Your task to perform on an android device: open app "WhatsApp Messenger" (install if not already installed) Image 0: 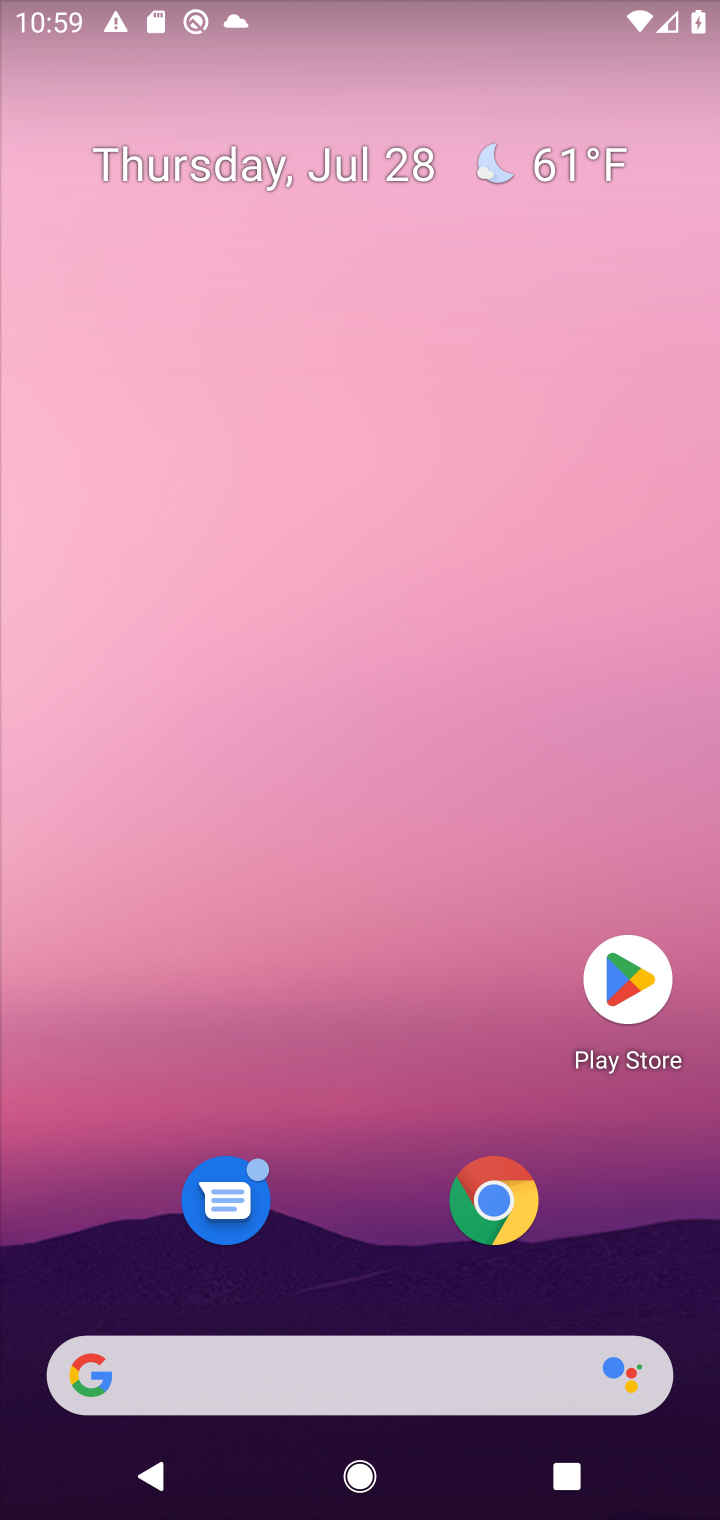
Step 0: press home button
Your task to perform on an android device: open app "WhatsApp Messenger" (install if not already installed) Image 1: 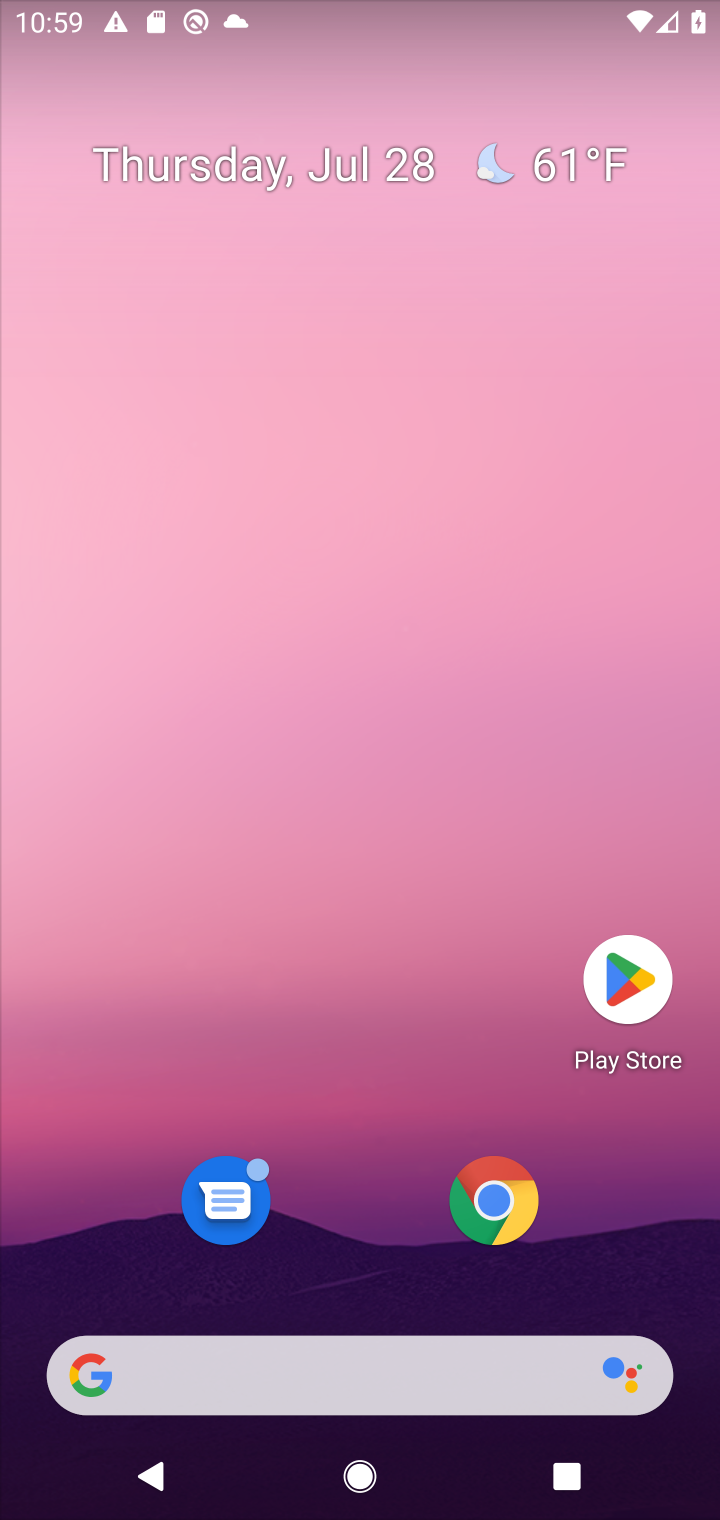
Step 1: click (620, 968)
Your task to perform on an android device: open app "WhatsApp Messenger" (install if not already installed) Image 2: 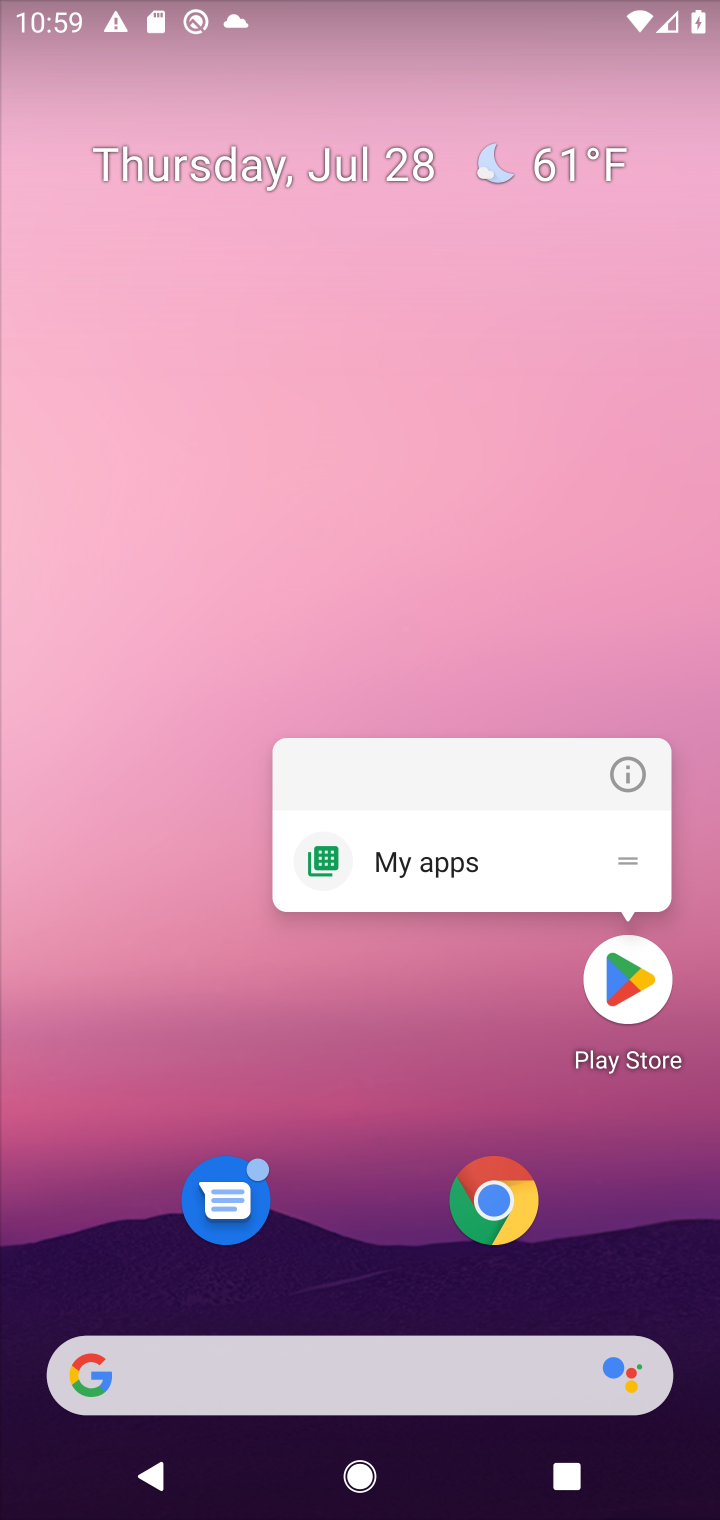
Step 2: click (620, 969)
Your task to perform on an android device: open app "WhatsApp Messenger" (install if not already installed) Image 3: 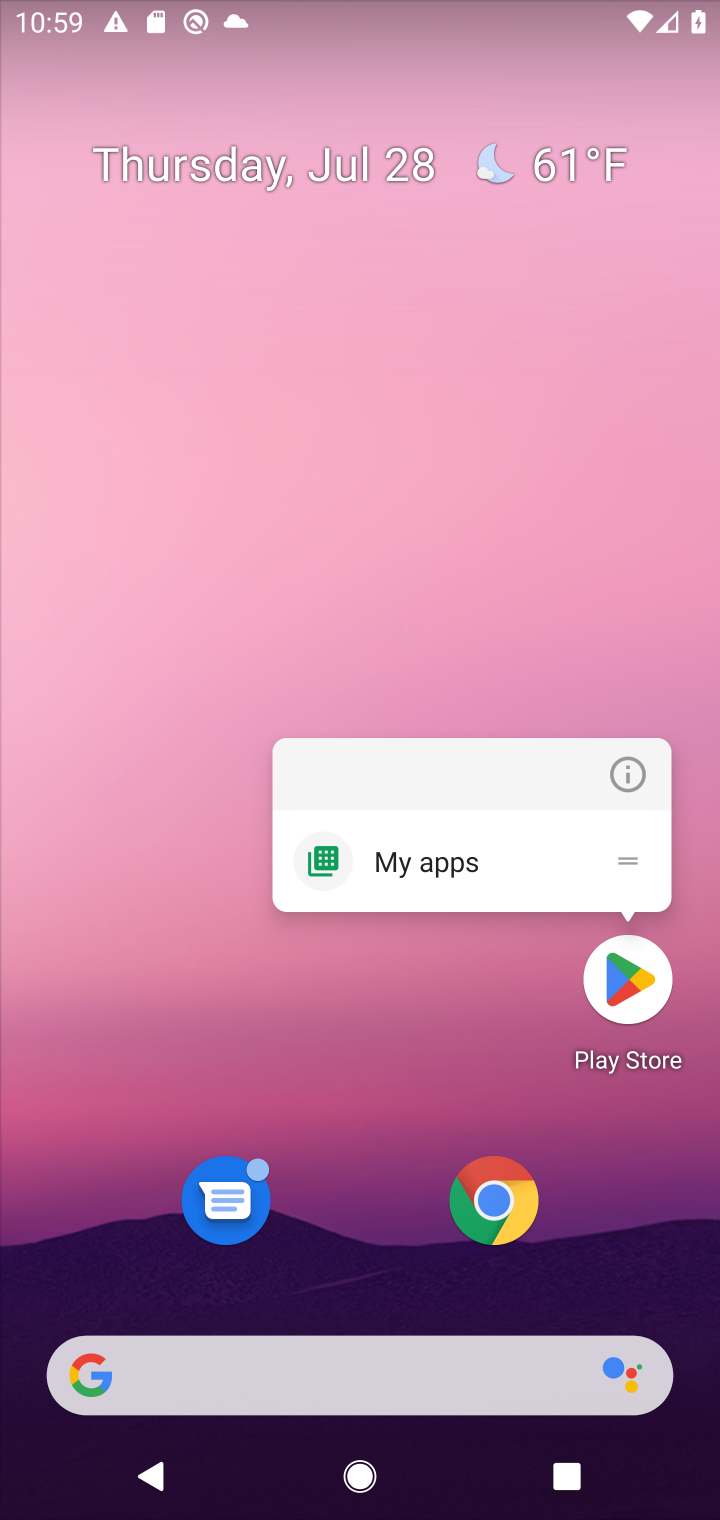
Step 3: click (622, 979)
Your task to perform on an android device: open app "WhatsApp Messenger" (install if not already installed) Image 4: 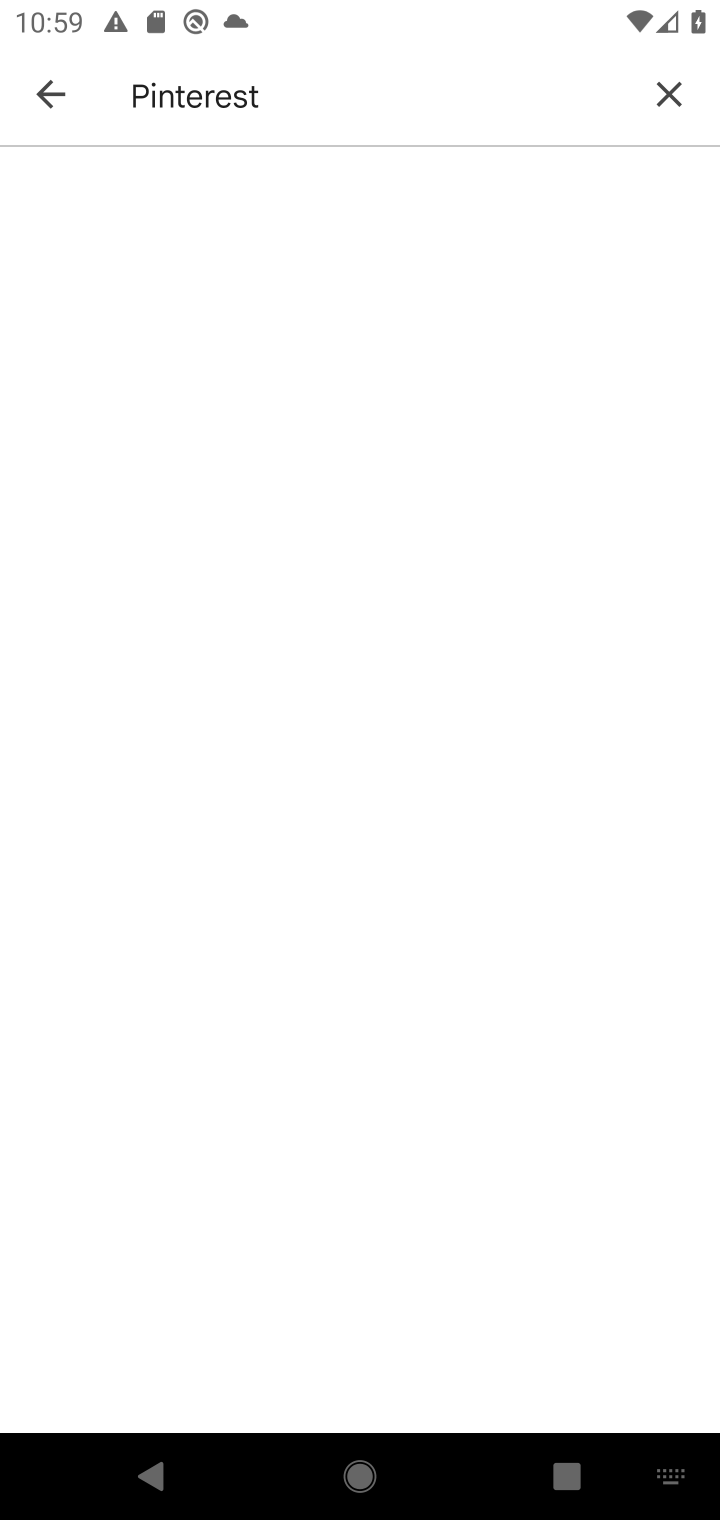
Step 4: click (654, 92)
Your task to perform on an android device: open app "WhatsApp Messenger" (install if not already installed) Image 5: 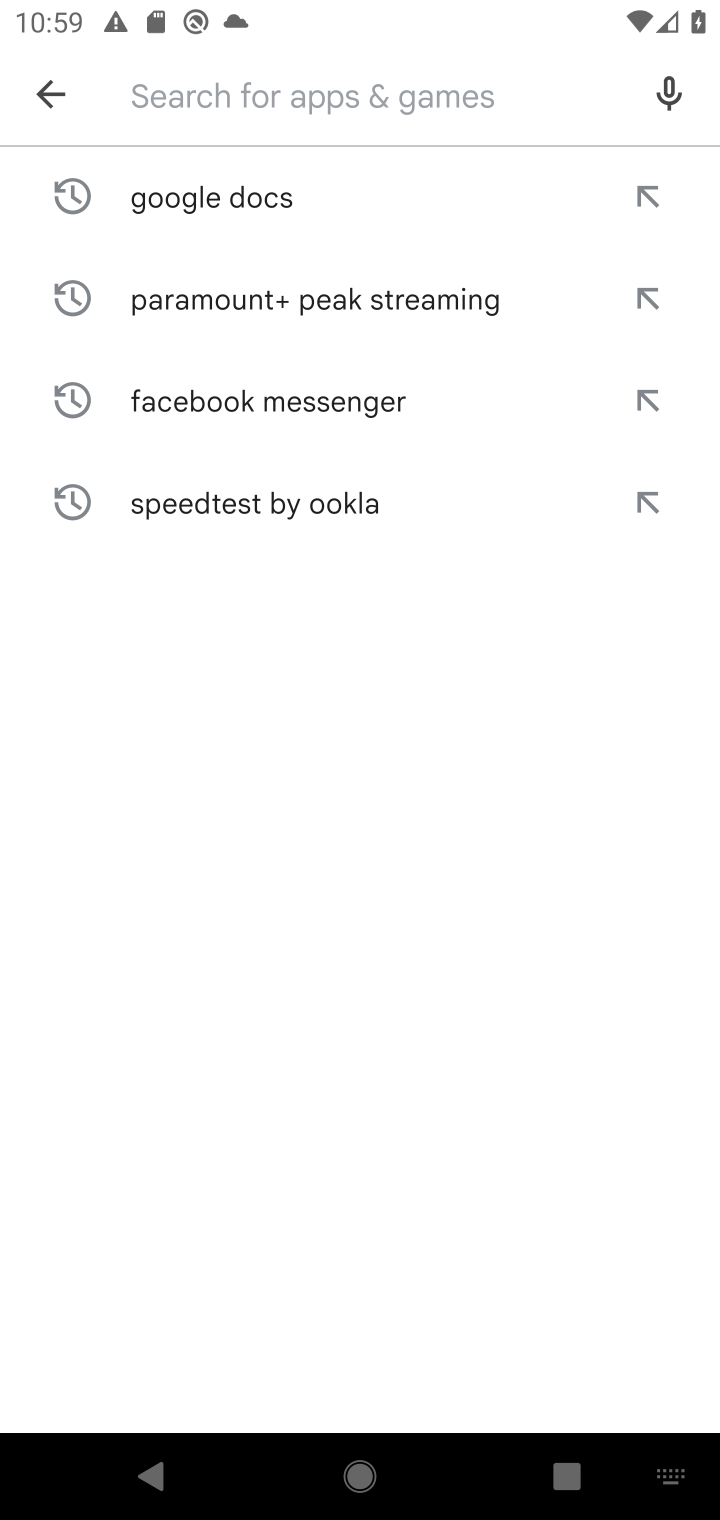
Step 5: type "WhatsApp Messenger"
Your task to perform on an android device: open app "WhatsApp Messenger" (install if not already installed) Image 6: 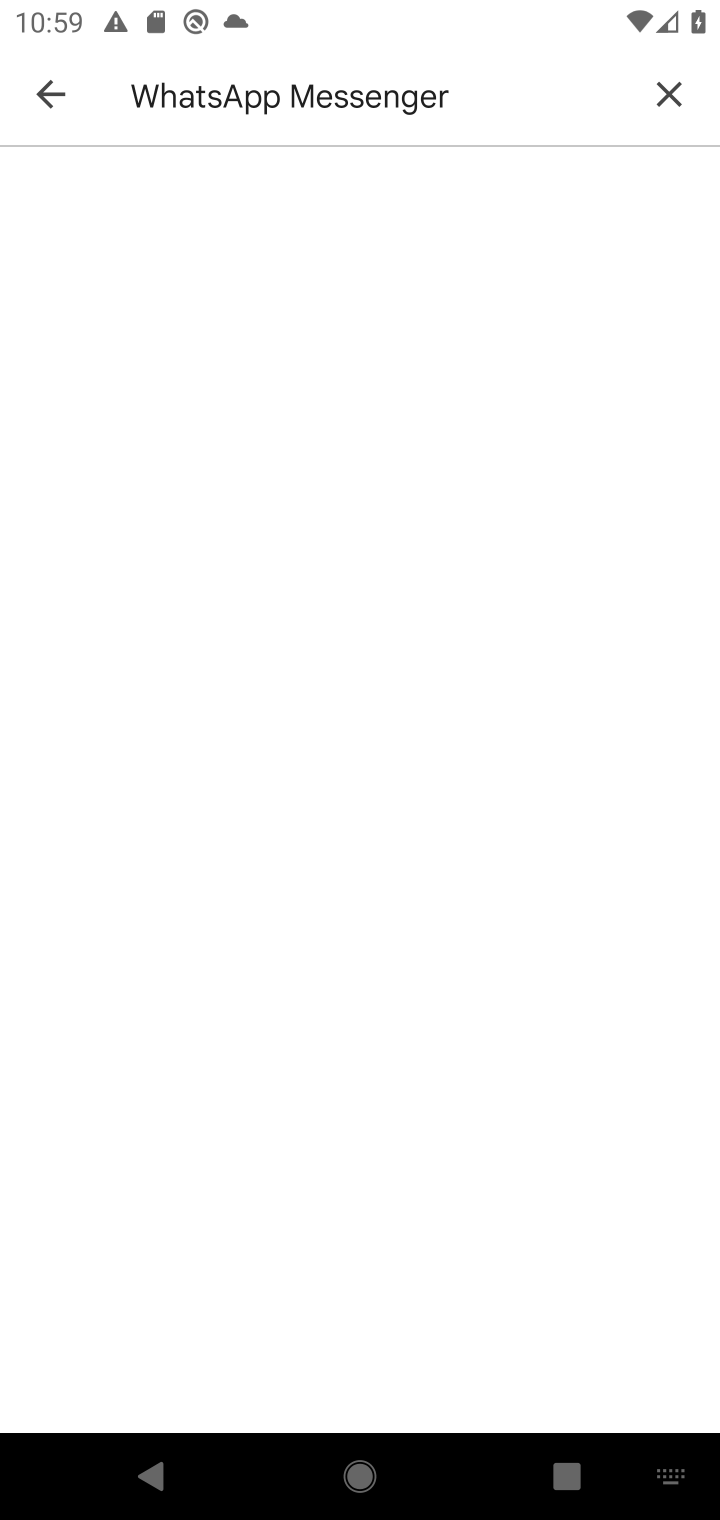
Step 6: click (681, 95)
Your task to perform on an android device: open app "WhatsApp Messenger" (install if not already installed) Image 7: 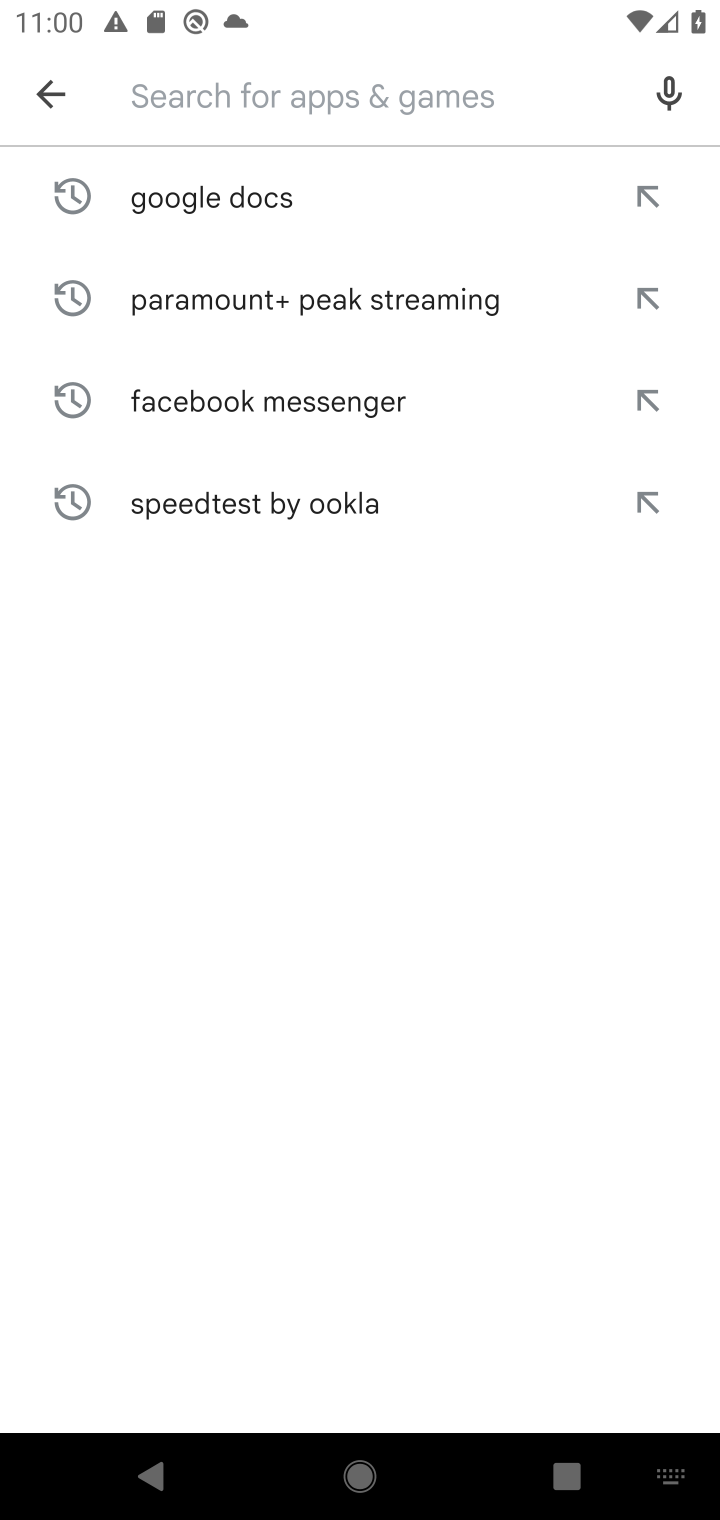
Step 7: click (237, 96)
Your task to perform on an android device: open app "WhatsApp Messenger" (install if not already installed) Image 8: 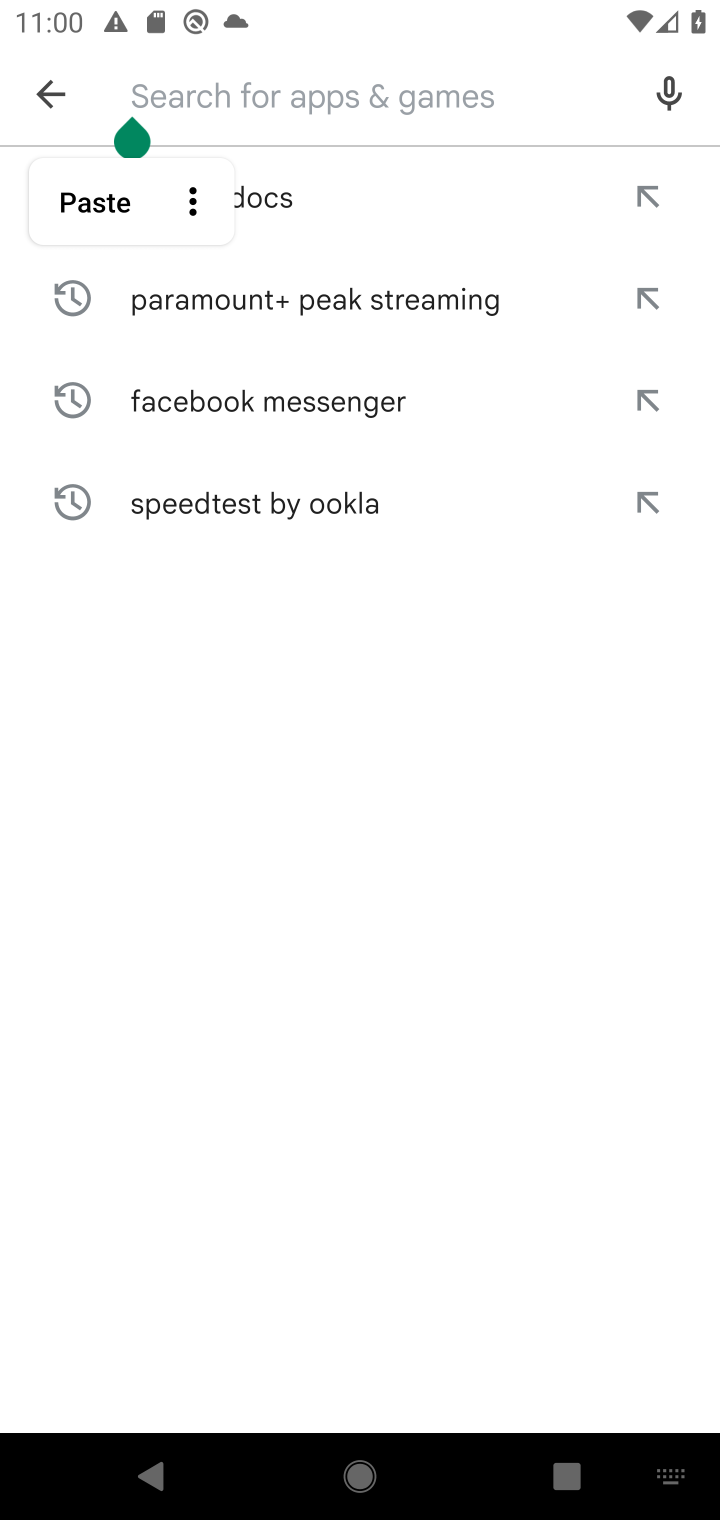
Step 8: type "WhatsApp Messenger"
Your task to perform on an android device: open app "WhatsApp Messenger" (install if not already installed) Image 9: 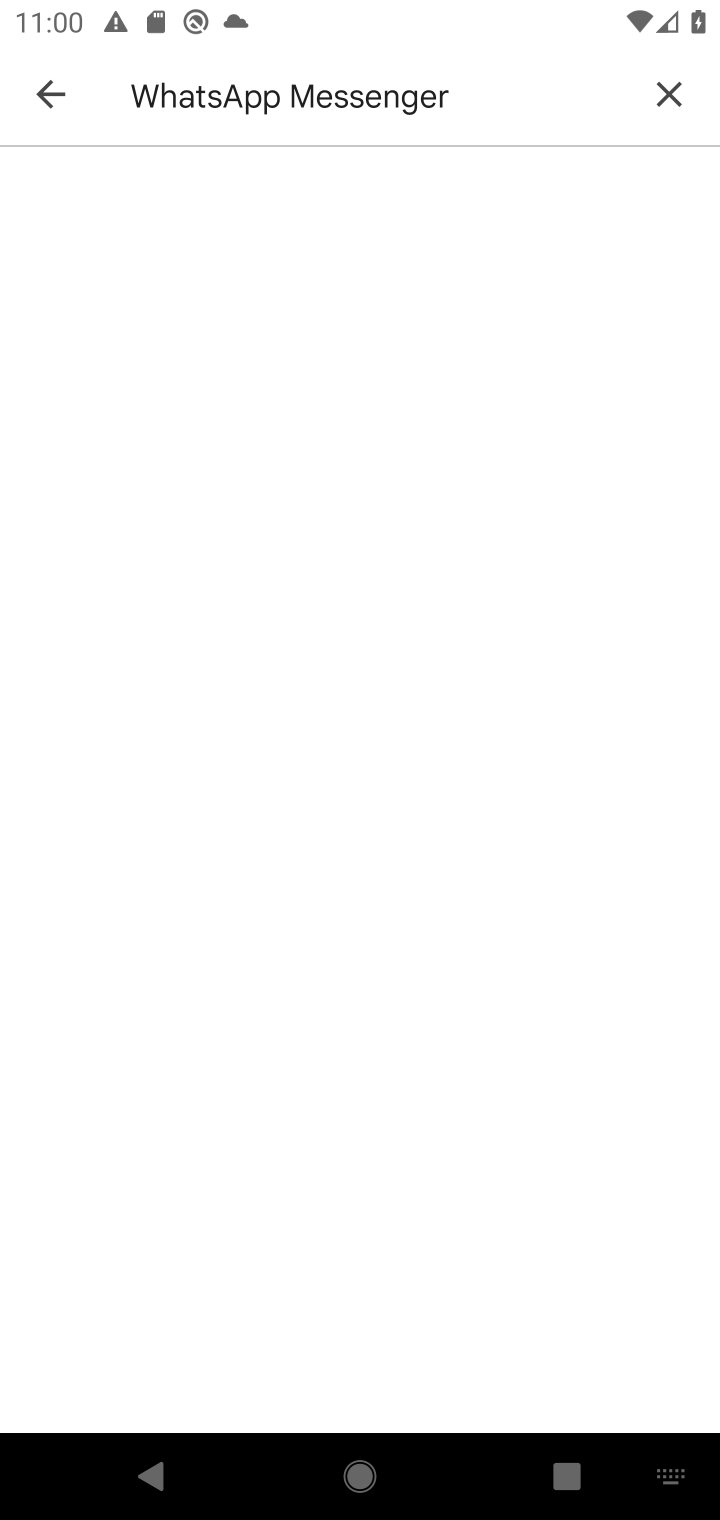
Step 9: task complete